Your task to perform on an android device: Do I have any events tomorrow? Image 0: 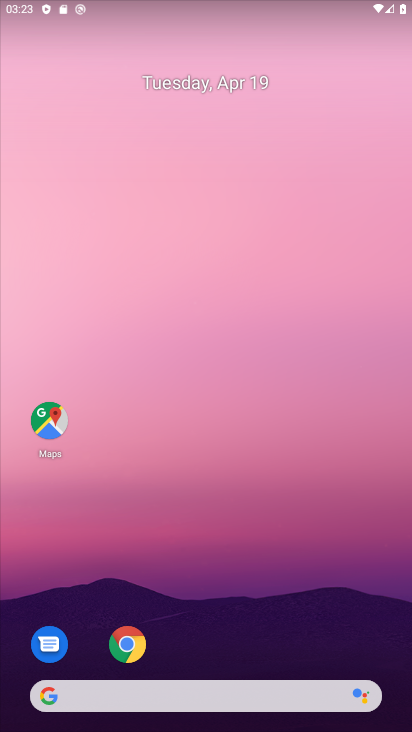
Step 0: drag from (369, 598) to (310, 155)
Your task to perform on an android device: Do I have any events tomorrow? Image 1: 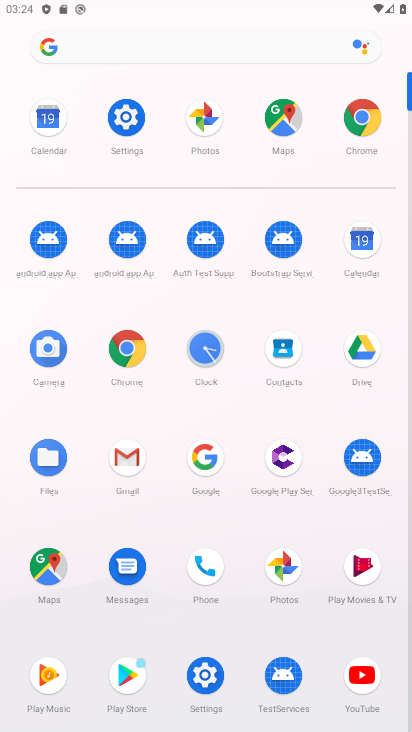
Step 1: click (365, 240)
Your task to perform on an android device: Do I have any events tomorrow? Image 2: 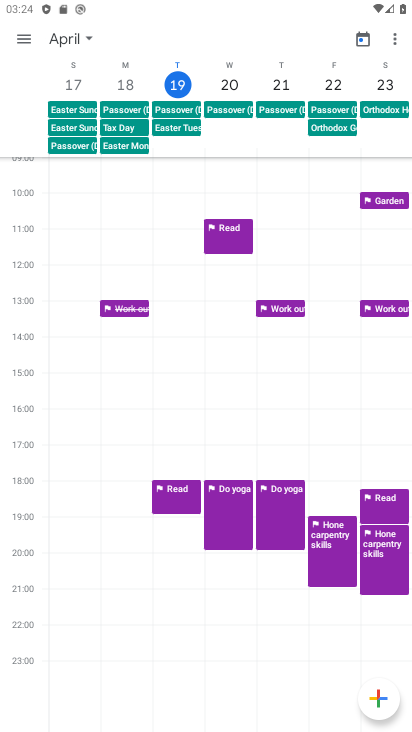
Step 2: click (231, 85)
Your task to perform on an android device: Do I have any events tomorrow? Image 3: 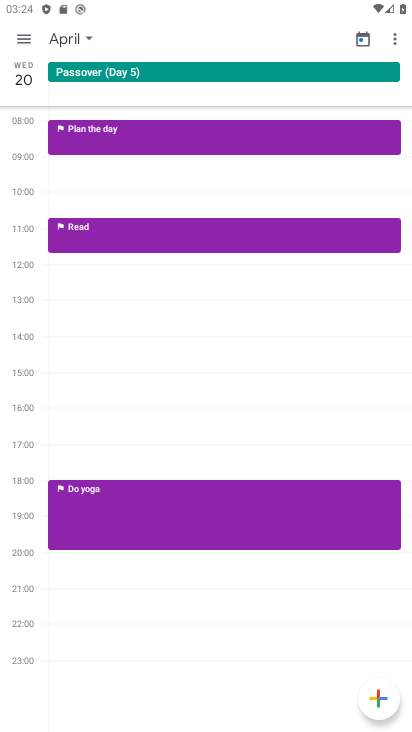
Step 3: task complete